Your task to perform on an android device: check storage Image 0: 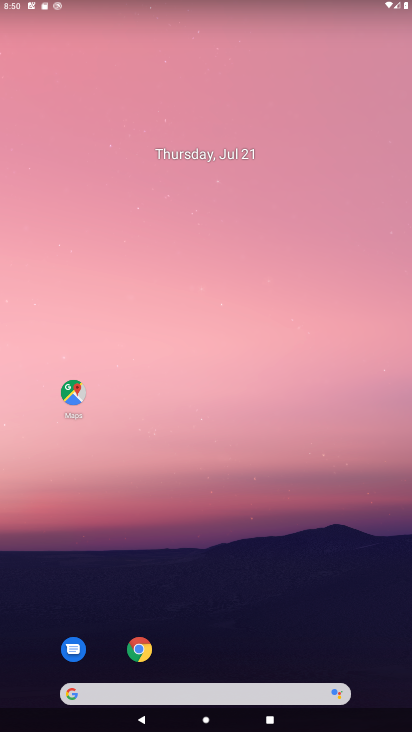
Step 0: drag from (175, 673) to (178, 50)
Your task to perform on an android device: check storage Image 1: 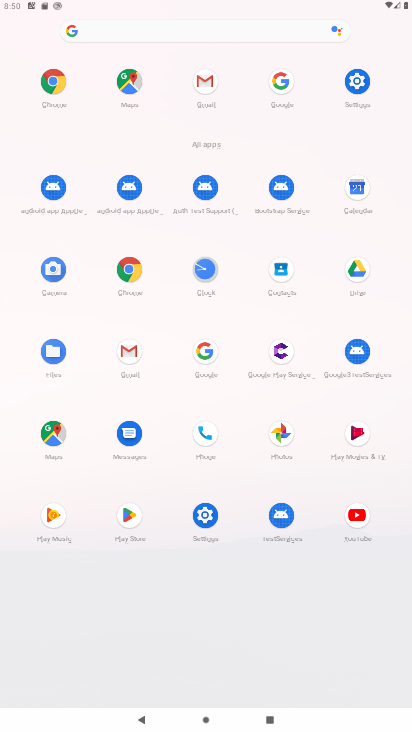
Step 1: click (356, 73)
Your task to perform on an android device: check storage Image 2: 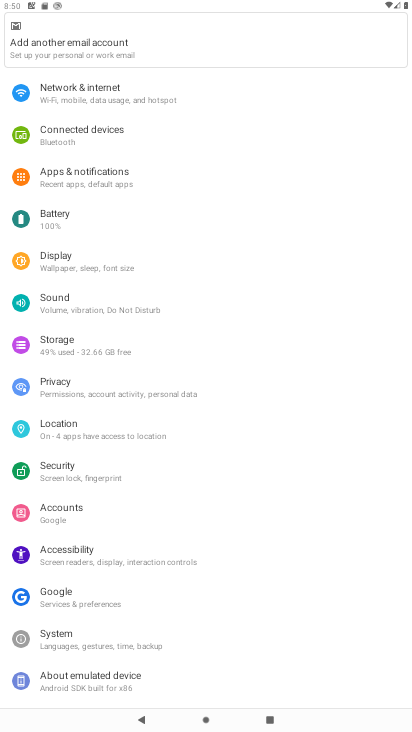
Step 2: click (54, 347)
Your task to perform on an android device: check storage Image 3: 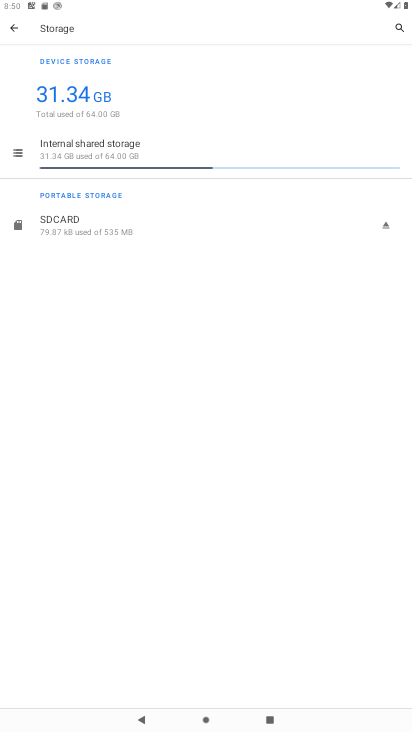
Step 3: task complete